Your task to perform on an android device: Open privacy settings Image 0: 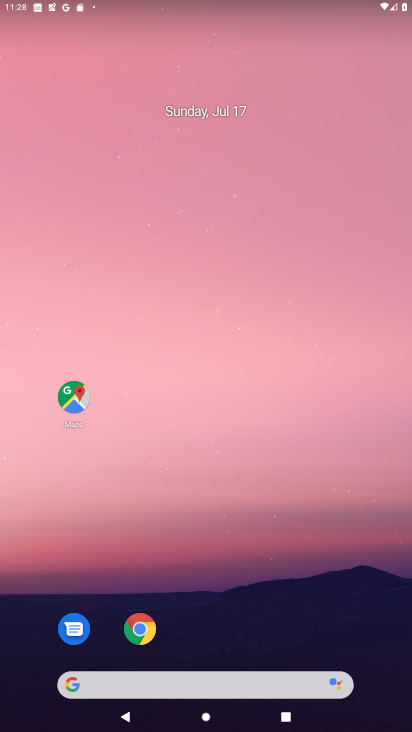
Step 0: drag from (176, 680) to (375, 138)
Your task to perform on an android device: Open privacy settings Image 1: 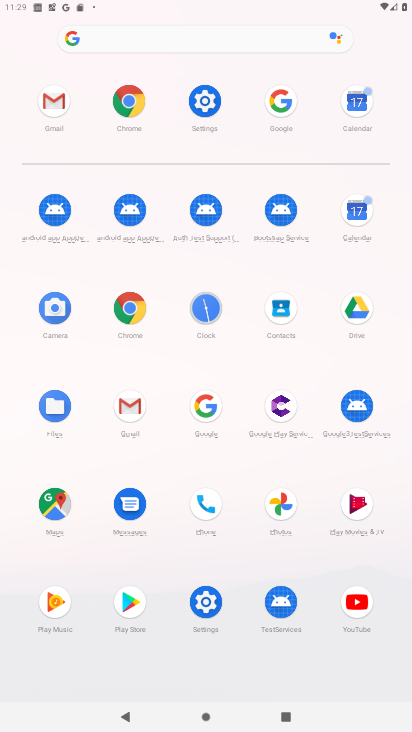
Step 1: click (205, 101)
Your task to perform on an android device: Open privacy settings Image 2: 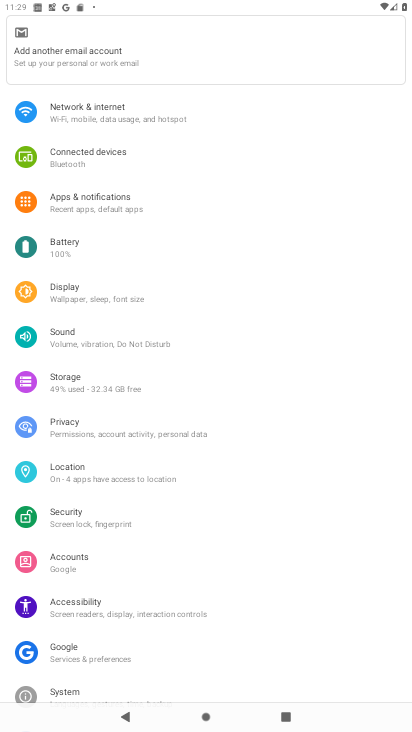
Step 2: click (118, 433)
Your task to perform on an android device: Open privacy settings Image 3: 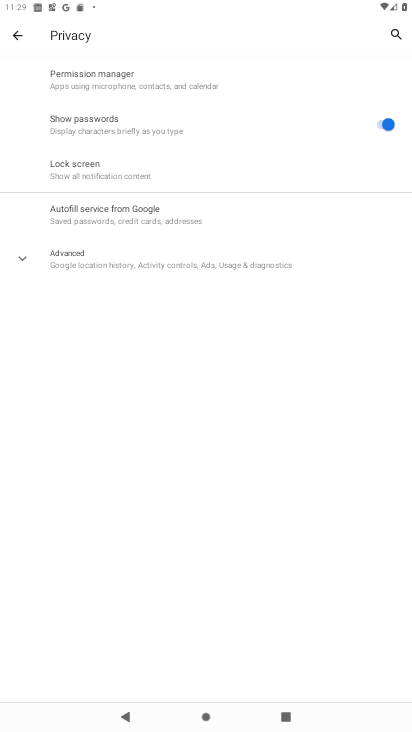
Step 3: task complete